Your task to perform on an android device: Open internet settings Image 0: 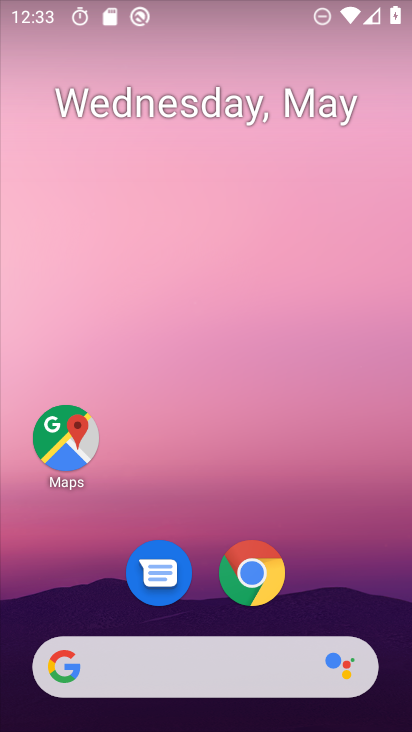
Step 0: click (232, 48)
Your task to perform on an android device: Open internet settings Image 1: 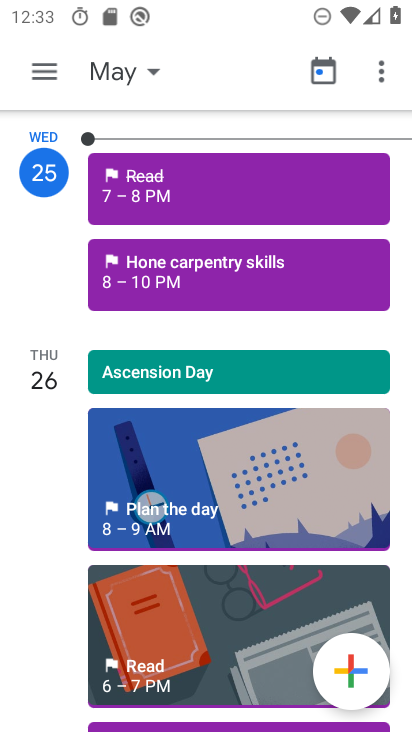
Step 1: press back button
Your task to perform on an android device: Open internet settings Image 2: 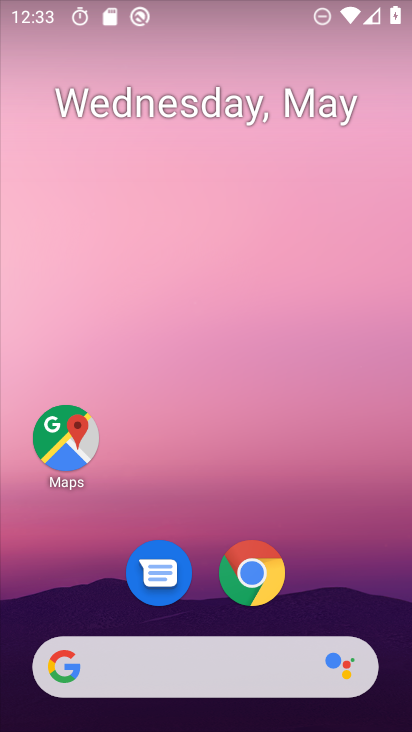
Step 2: drag from (333, 574) to (265, 41)
Your task to perform on an android device: Open internet settings Image 3: 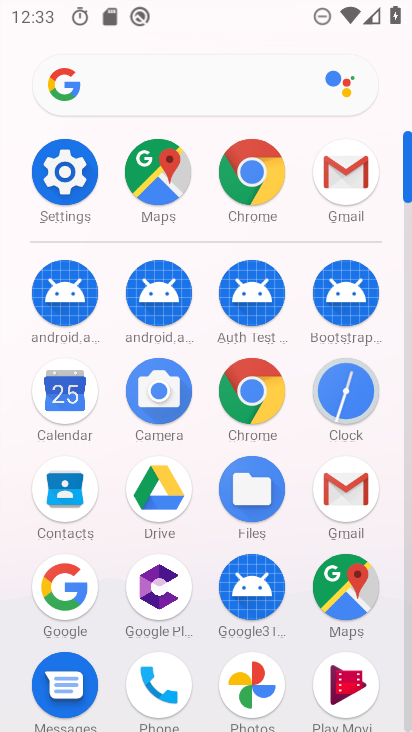
Step 3: drag from (1, 623) to (30, 278)
Your task to perform on an android device: Open internet settings Image 4: 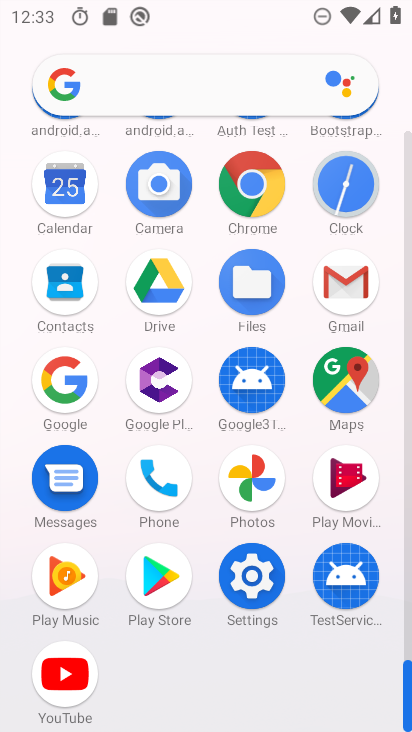
Step 4: click (246, 572)
Your task to perform on an android device: Open internet settings Image 5: 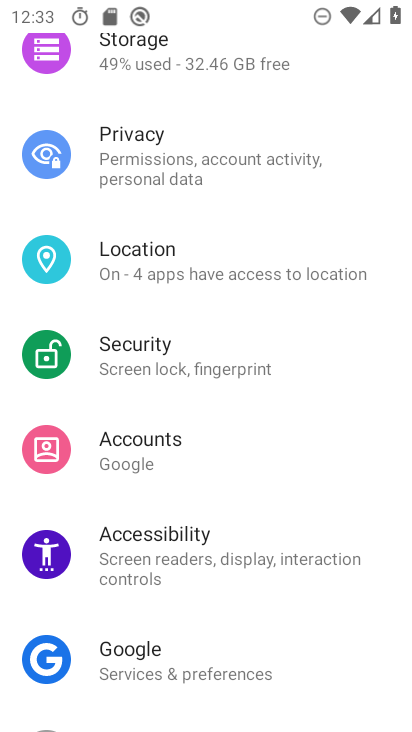
Step 5: drag from (280, 166) to (299, 531)
Your task to perform on an android device: Open internet settings Image 6: 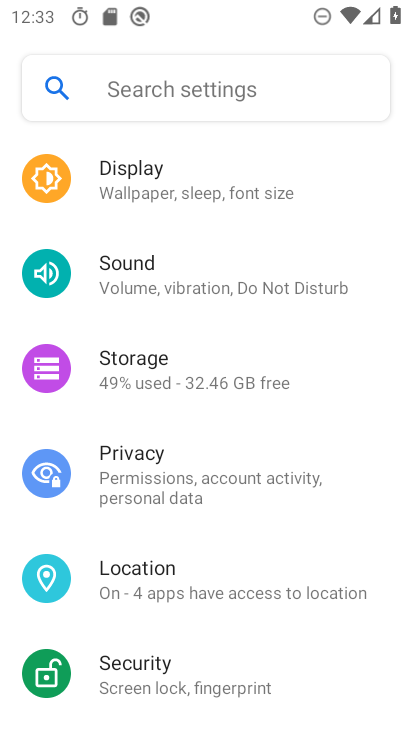
Step 6: drag from (280, 218) to (307, 551)
Your task to perform on an android device: Open internet settings Image 7: 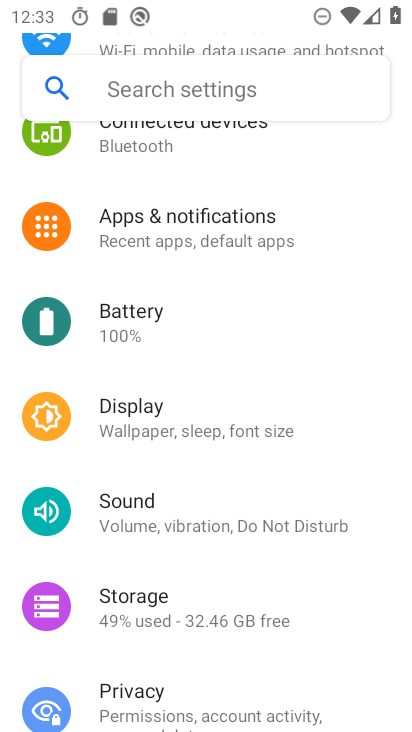
Step 7: drag from (264, 187) to (272, 613)
Your task to perform on an android device: Open internet settings Image 8: 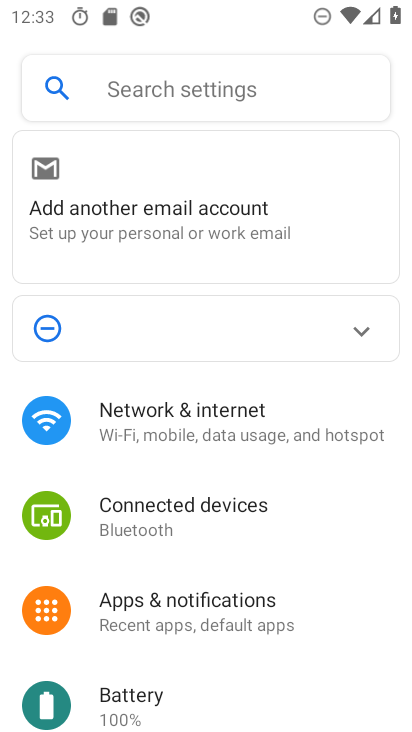
Step 8: click (258, 413)
Your task to perform on an android device: Open internet settings Image 9: 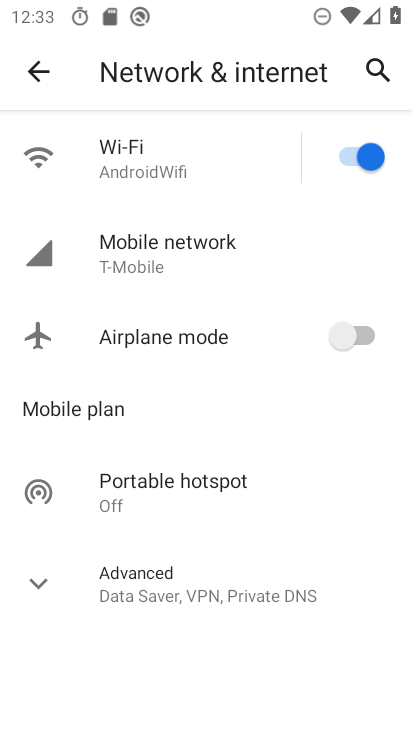
Step 9: click (34, 572)
Your task to perform on an android device: Open internet settings Image 10: 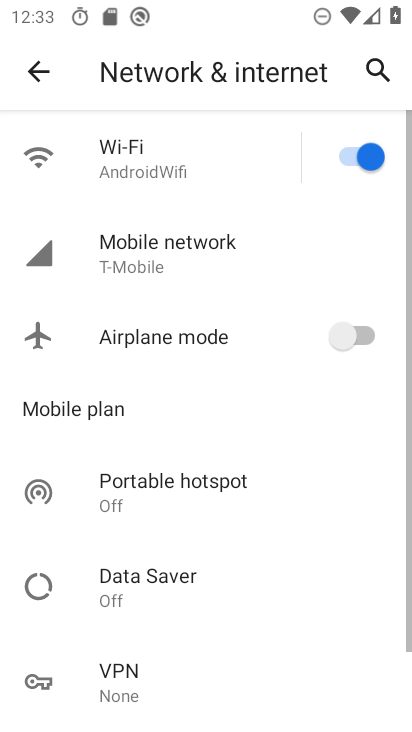
Step 10: task complete